Your task to perform on an android device: change keyboard looks Image 0: 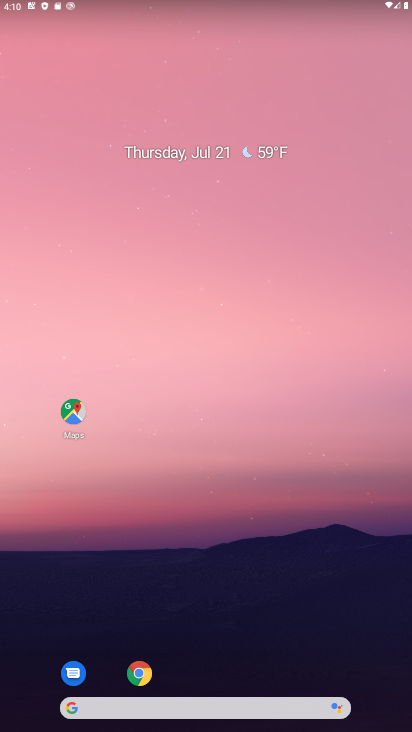
Step 0: drag from (374, 685) to (302, 196)
Your task to perform on an android device: change keyboard looks Image 1: 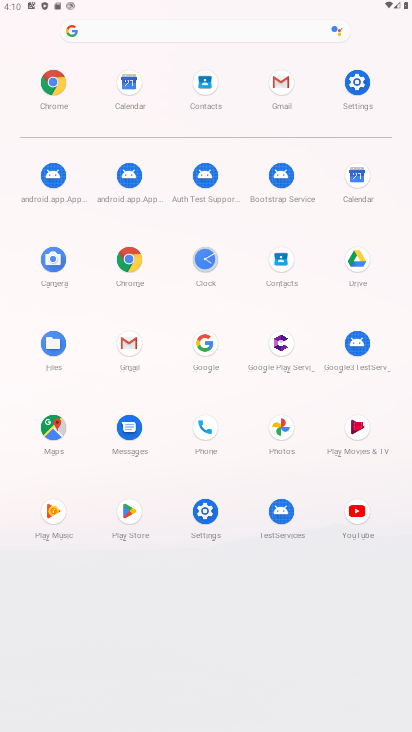
Step 1: click (205, 512)
Your task to perform on an android device: change keyboard looks Image 2: 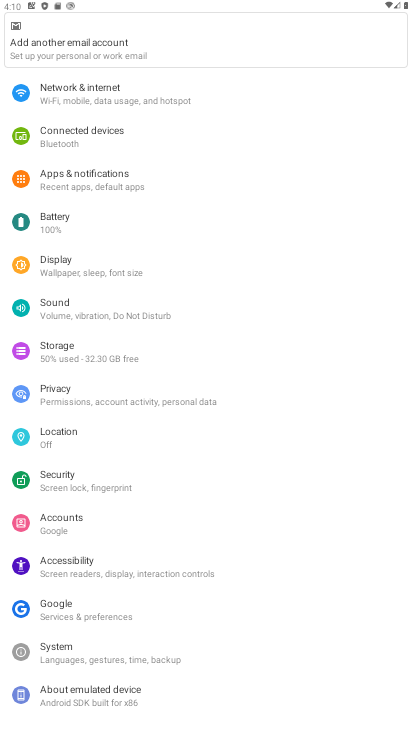
Step 2: click (60, 646)
Your task to perform on an android device: change keyboard looks Image 3: 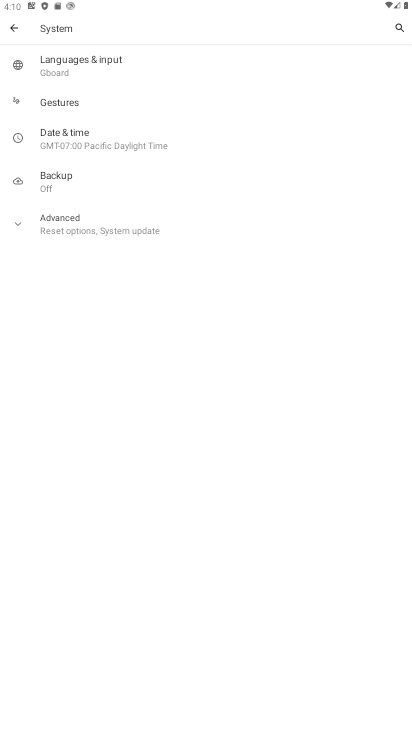
Step 3: click (69, 60)
Your task to perform on an android device: change keyboard looks Image 4: 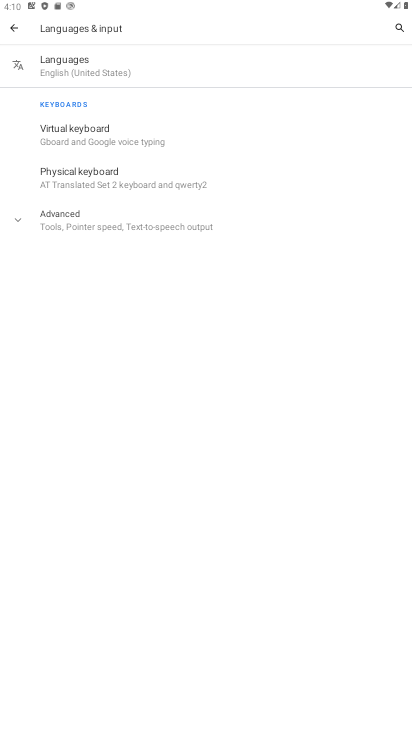
Step 4: click (62, 171)
Your task to perform on an android device: change keyboard looks Image 5: 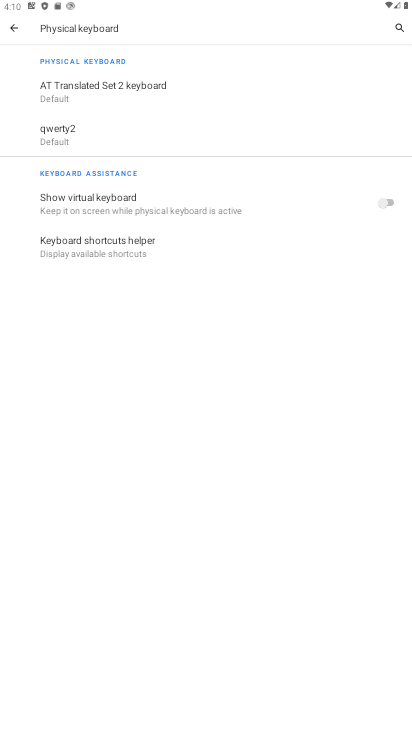
Step 5: click (59, 133)
Your task to perform on an android device: change keyboard looks Image 6: 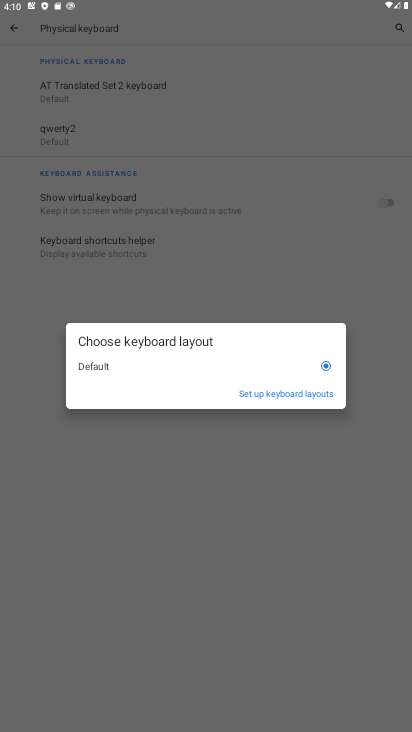
Step 6: click (290, 393)
Your task to perform on an android device: change keyboard looks Image 7: 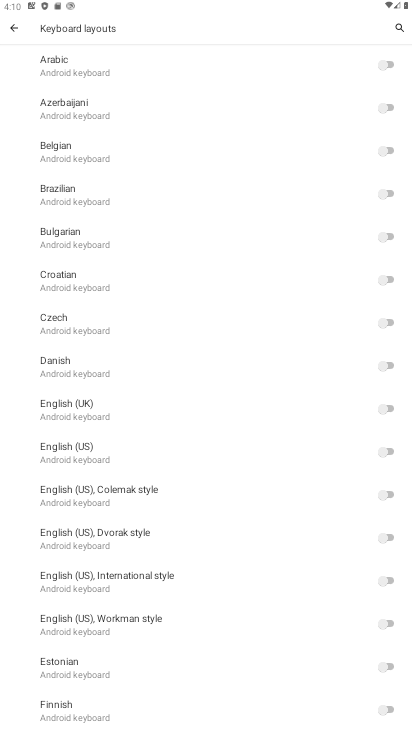
Step 7: click (392, 495)
Your task to perform on an android device: change keyboard looks Image 8: 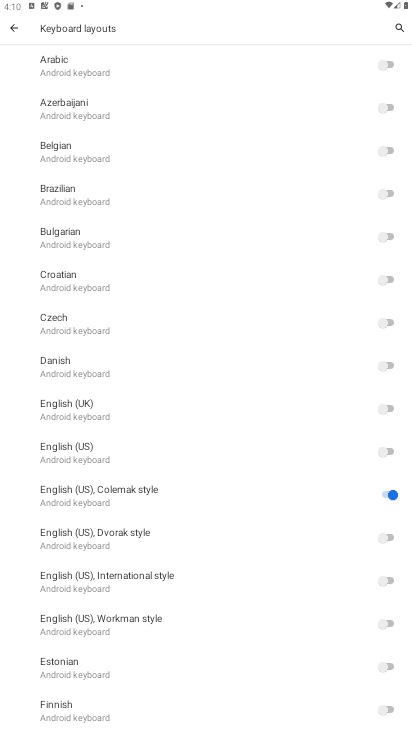
Step 8: task complete